Your task to perform on an android device: turn off wifi Image 0: 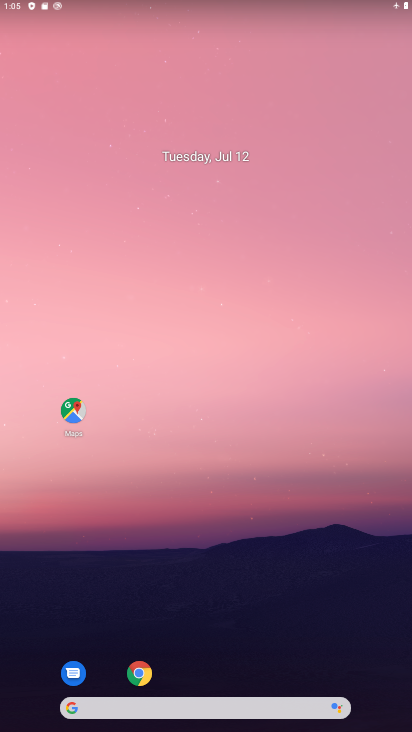
Step 0: drag from (239, 642) to (223, 161)
Your task to perform on an android device: turn off wifi Image 1: 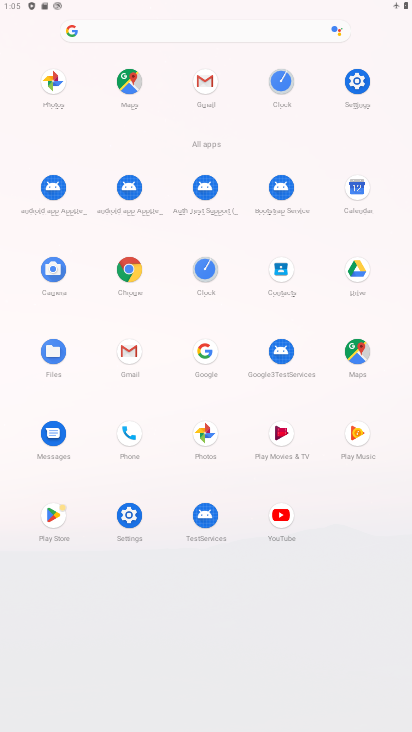
Step 1: click (360, 83)
Your task to perform on an android device: turn off wifi Image 2: 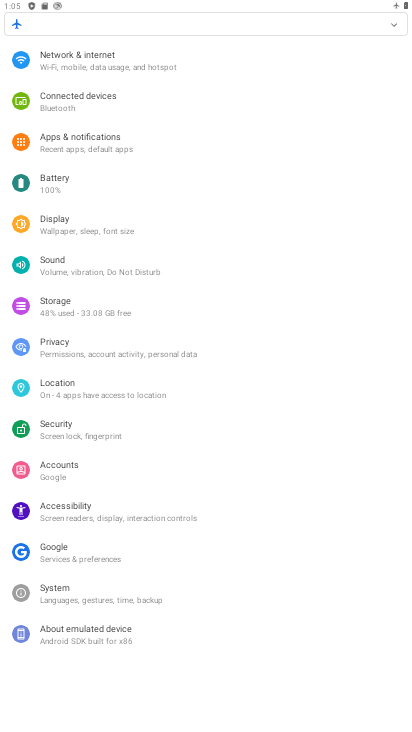
Step 2: click (70, 58)
Your task to perform on an android device: turn off wifi Image 3: 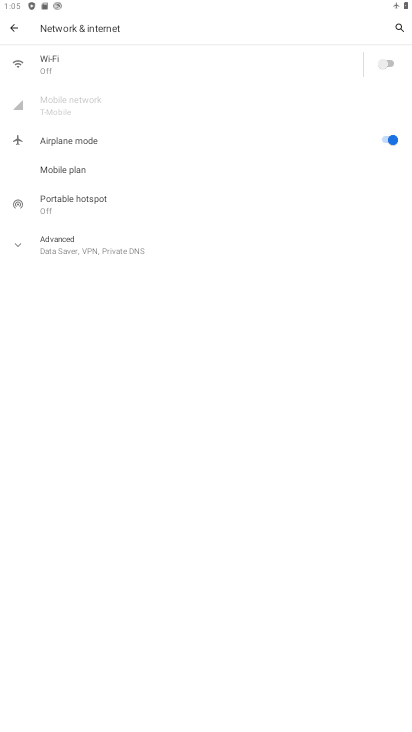
Step 3: task complete